Your task to perform on an android device: Open Maps and search for coffee Image 0: 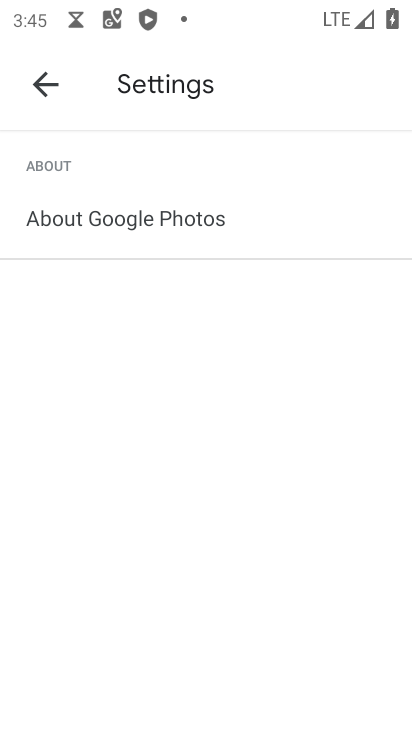
Step 0: press home button
Your task to perform on an android device: Open Maps and search for coffee Image 1: 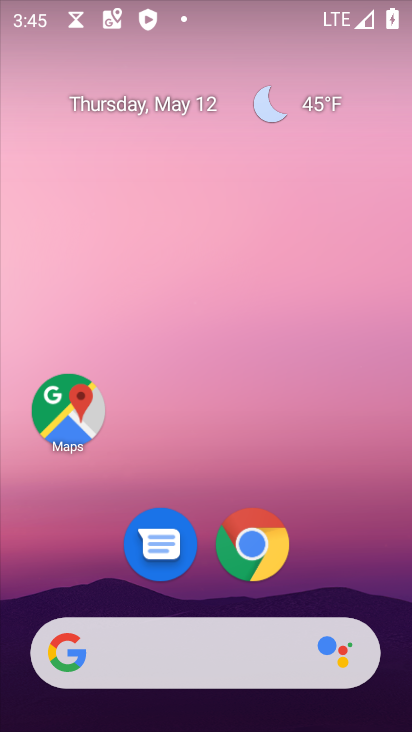
Step 1: click (67, 402)
Your task to perform on an android device: Open Maps and search for coffee Image 2: 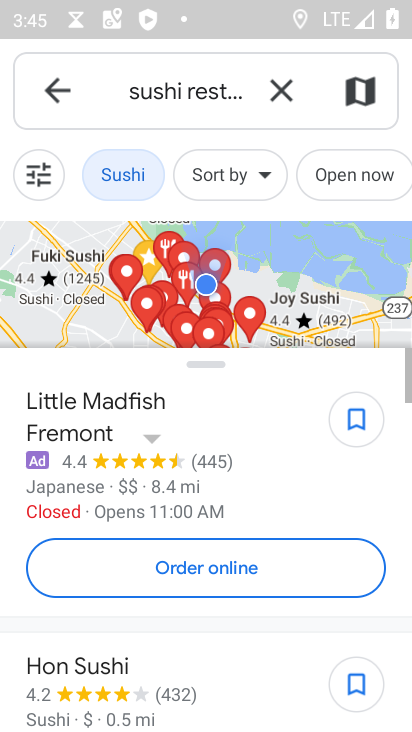
Step 2: click (285, 99)
Your task to perform on an android device: Open Maps and search for coffee Image 3: 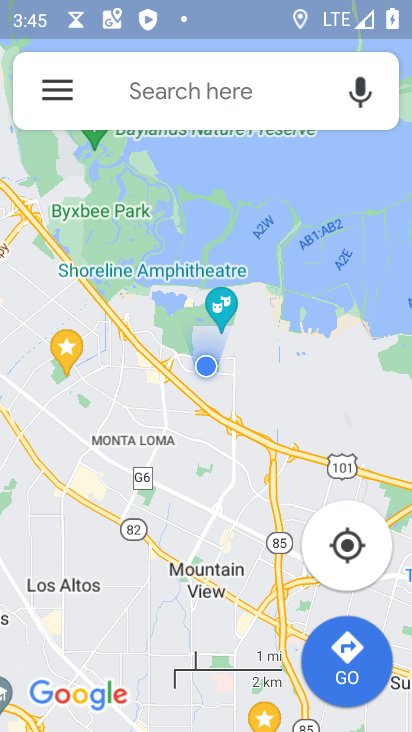
Step 3: click (238, 85)
Your task to perform on an android device: Open Maps and search for coffee Image 4: 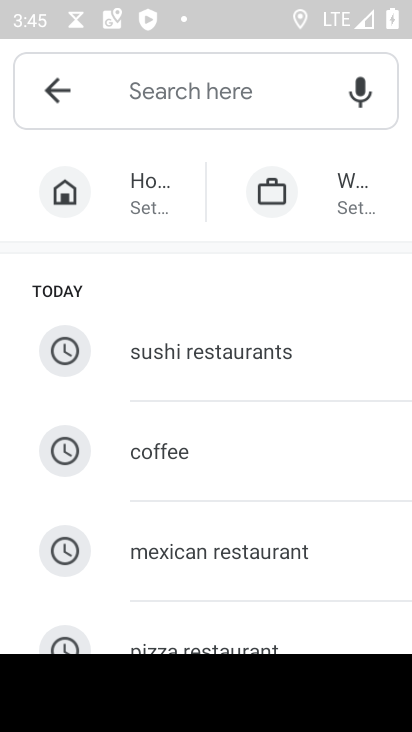
Step 4: type "coffee"
Your task to perform on an android device: Open Maps and search for coffee Image 5: 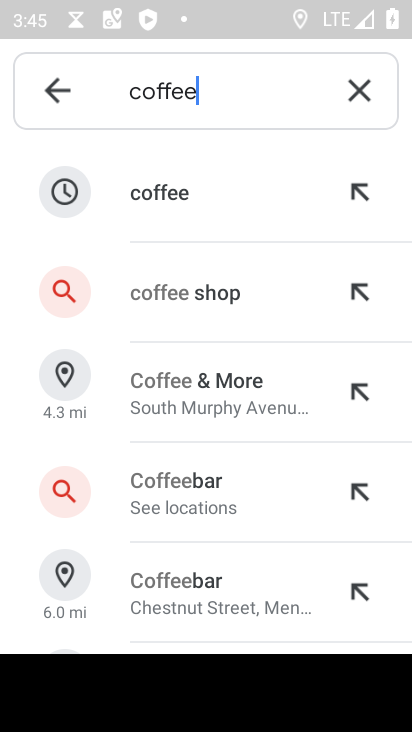
Step 5: click (237, 193)
Your task to perform on an android device: Open Maps and search for coffee Image 6: 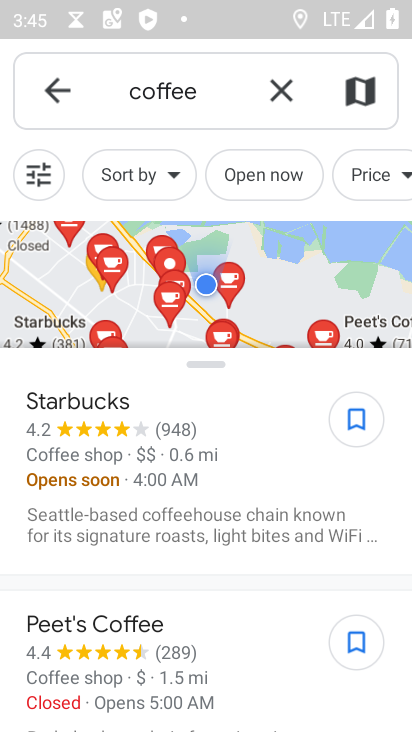
Step 6: task complete